Your task to perform on an android device: Open my contact list Image 0: 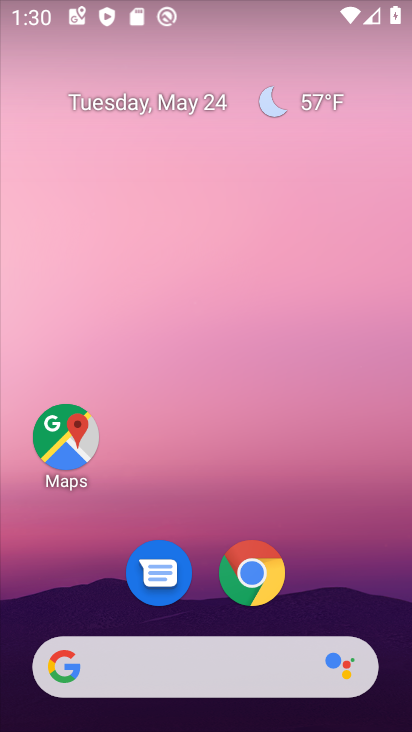
Step 0: drag from (384, 588) to (349, 137)
Your task to perform on an android device: Open my contact list Image 1: 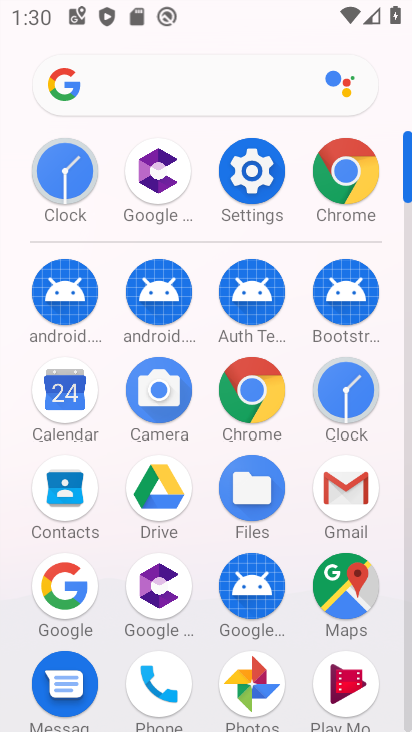
Step 1: click (70, 498)
Your task to perform on an android device: Open my contact list Image 2: 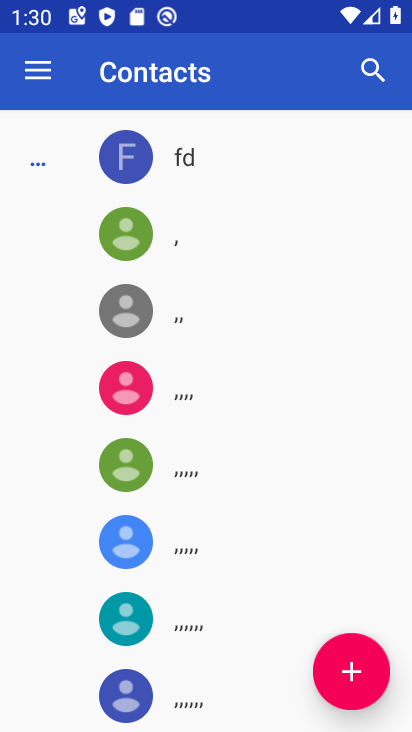
Step 2: task complete